Your task to perform on an android device: Search for vegetarian restaurants on Maps Image 0: 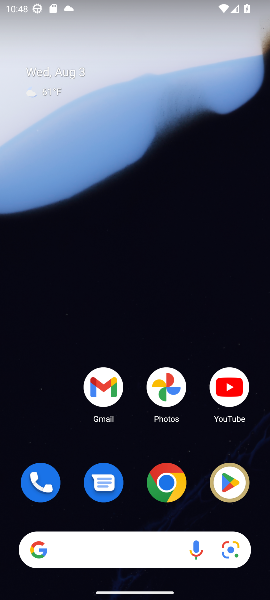
Step 0: drag from (136, 524) to (106, 62)
Your task to perform on an android device: Search for vegetarian restaurants on Maps Image 1: 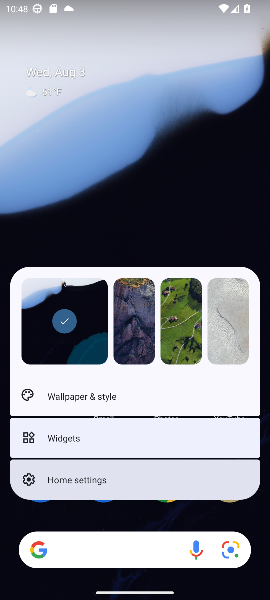
Step 1: click (121, 185)
Your task to perform on an android device: Search for vegetarian restaurants on Maps Image 2: 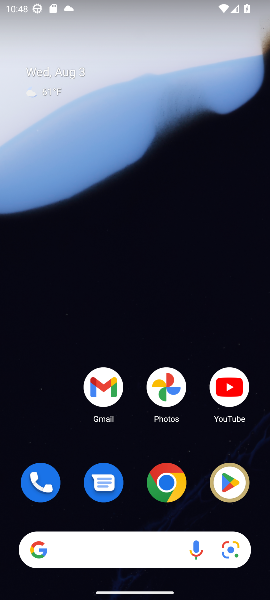
Step 2: drag from (66, 516) to (38, 159)
Your task to perform on an android device: Search for vegetarian restaurants on Maps Image 3: 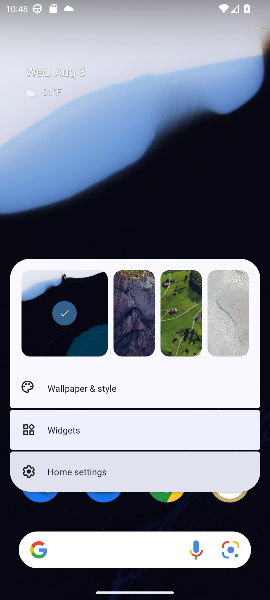
Step 3: click (76, 162)
Your task to perform on an android device: Search for vegetarian restaurants on Maps Image 4: 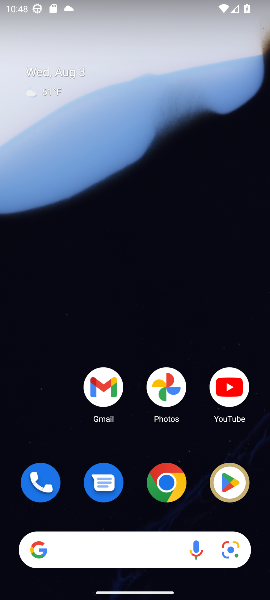
Step 4: drag from (132, 513) to (133, 87)
Your task to perform on an android device: Search for vegetarian restaurants on Maps Image 5: 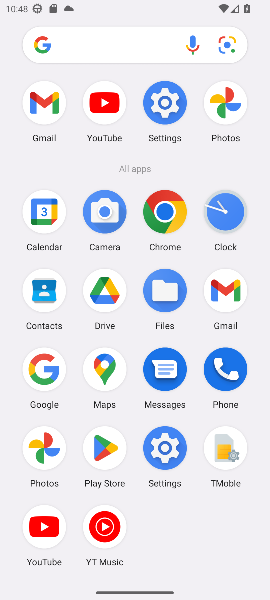
Step 5: click (96, 394)
Your task to perform on an android device: Search for vegetarian restaurants on Maps Image 6: 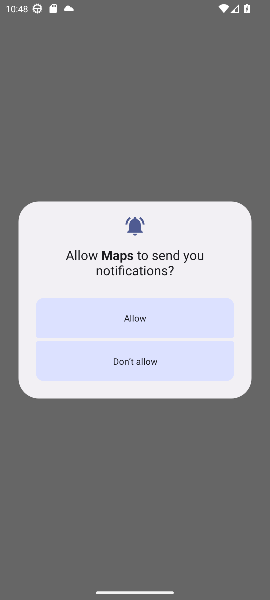
Step 6: task complete